Your task to perform on an android device: allow notifications from all sites in the chrome app Image 0: 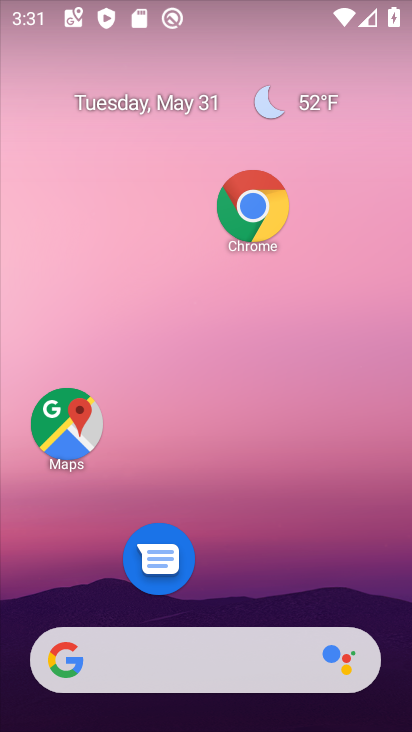
Step 0: click (273, 200)
Your task to perform on an android device: allow notifications from all sites in the chrome app Image 1: 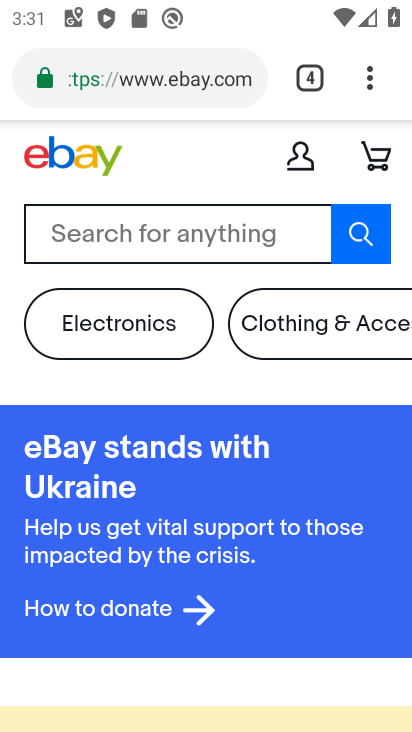
Step 1: drag from (370, 67) to (120, 613)
Your task to perform on an android device: allow notifications from all sites in the chrome app Image 2: 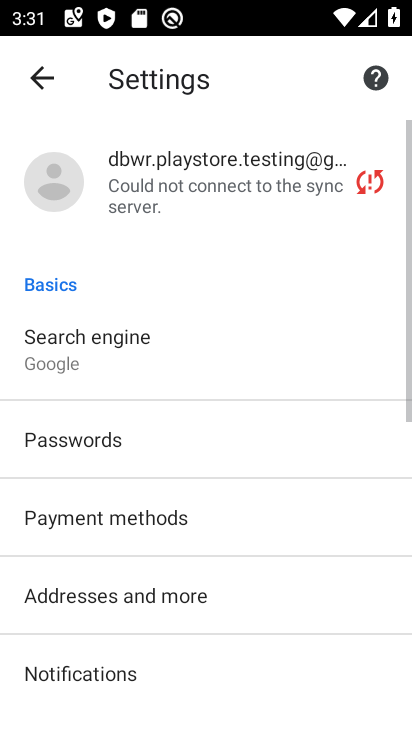
Step 2: drag from (120, 613) to (132, 455)
Your task to perform on an android device: allow notifications from all sites in the chrome app Image 3: 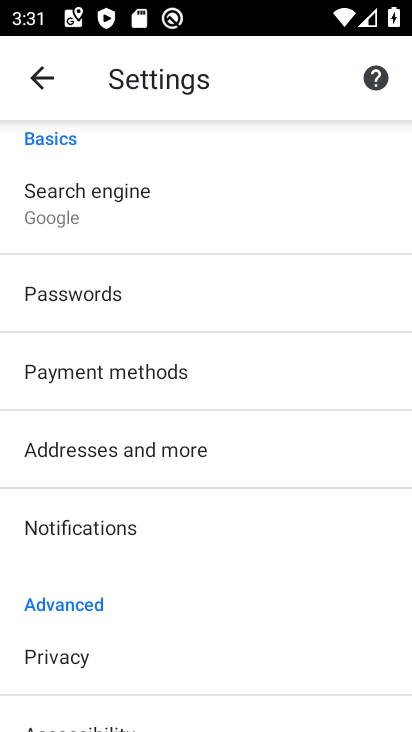
Step 3: drag from (148, 644) to (162, 339)
Your task to perform on an android device: allow notifications from all sites in the chrome app Image 4: 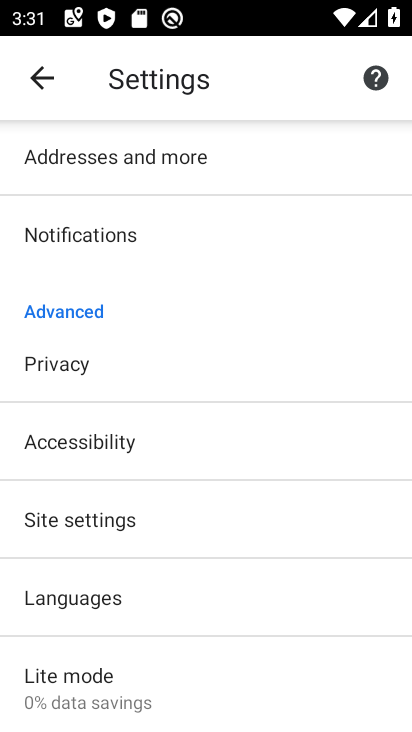
Step 4: click (111, 533)
Your task to perform on an android device: allow notifications from all sites in the chrome app Image 5: 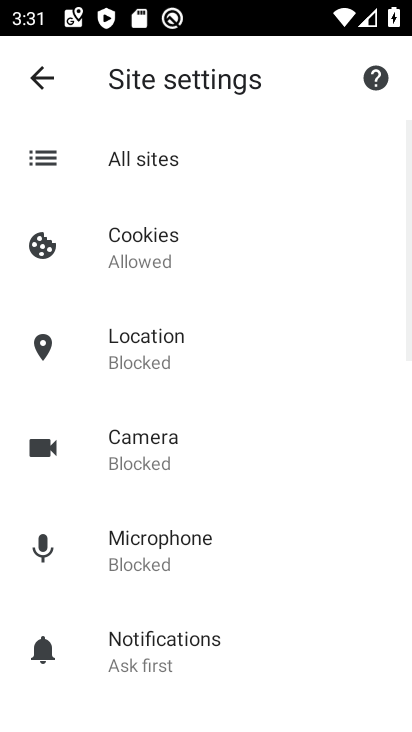
Step 5: click (169, 146)
Your task to perform on an android device: allow notifications from all sites in the chrome app Image 6: 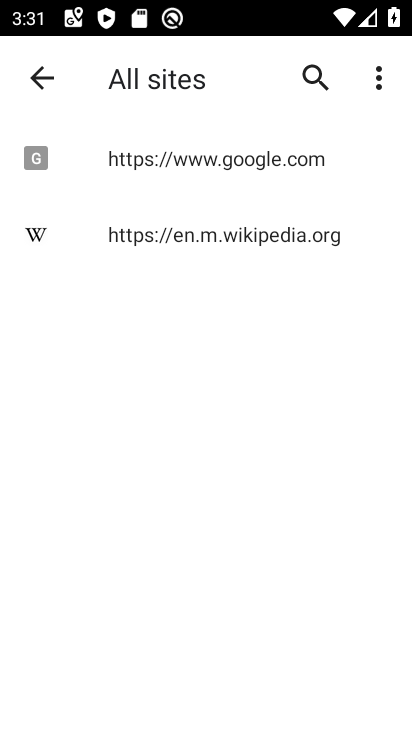
Step 6: click (191, 165)
Your task to perform on an android device: allow notifications from all sites in the chrome app Image 7: 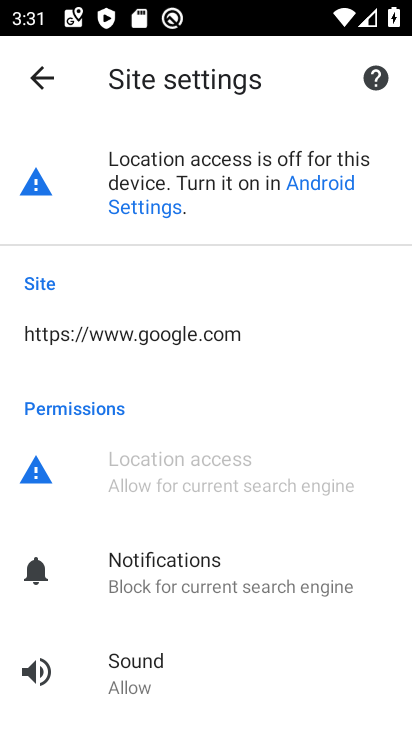
Step 7: drag from (210, 627) to (232, 435)
Your task to perform on an android device: allow notifications from all sites in the chrome app Image 8: 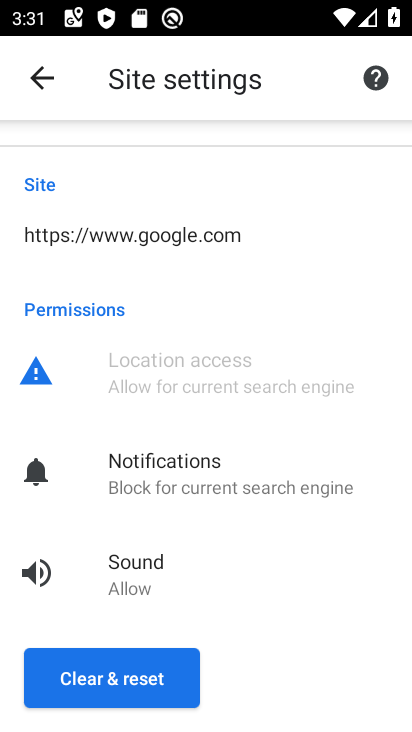
Step 8: click (205, 458)
Your task to perform on an android device: allow notifications from all sites in the chrome app Image 9: 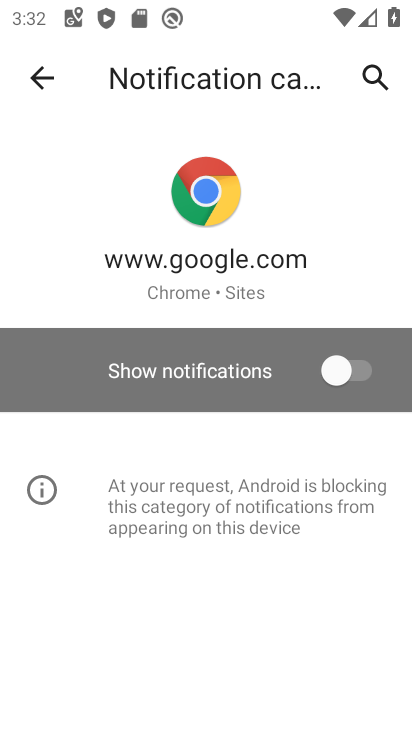
Step 9: click (361, 377)
Your task to perform on an android device: allow notifications from all sites in the chrome app Image 10: 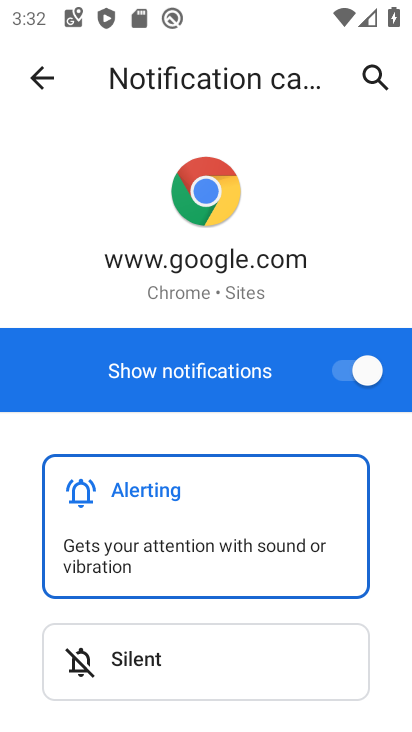
Step 10: task complete